Your task to perform on an android device: turn pop-ups on in chrome Image 0: 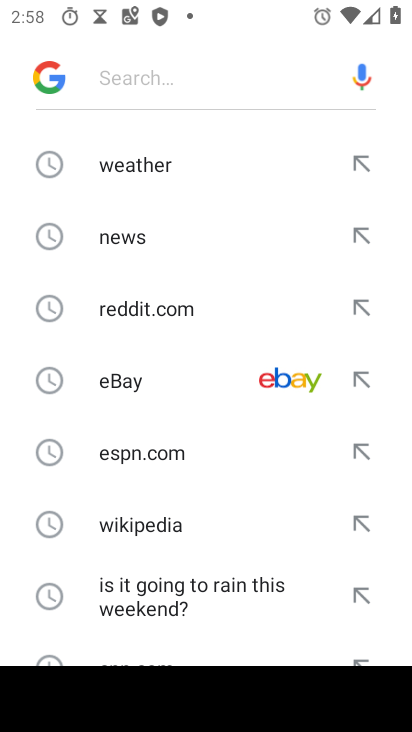
Step 0: press home button
Your task to perform on an android device: turn pop-ups on in chrome Image 1: 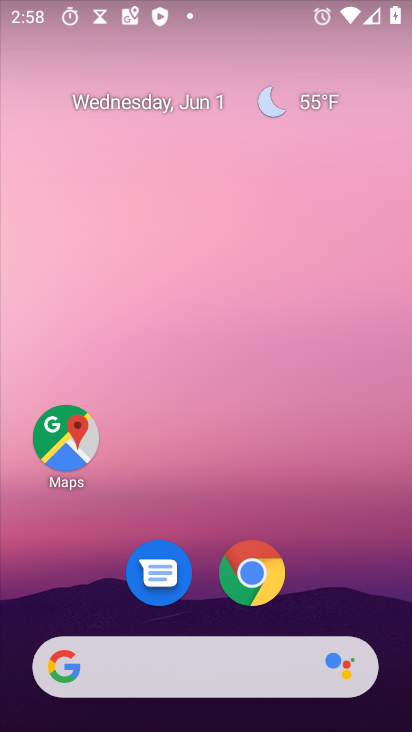
Step 1: drag from (367, 518) to (331, 19)
Your task to perform on an android device: turn pop-ups on in chrome Image 2: 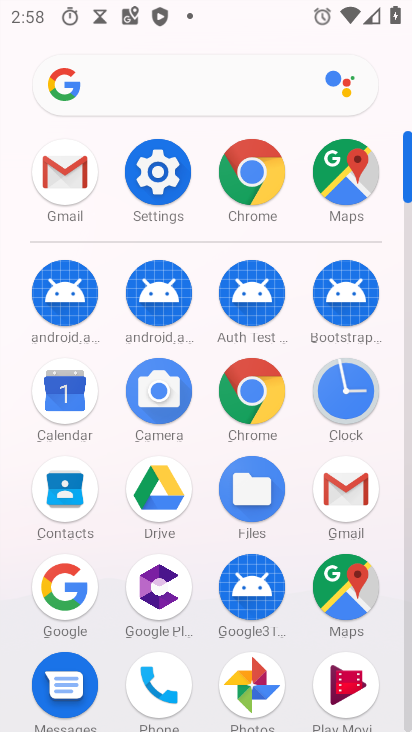
Step 2: click (254, 159)
Your task to perform on an android device: turn pop-ups on in chrome Image 3: 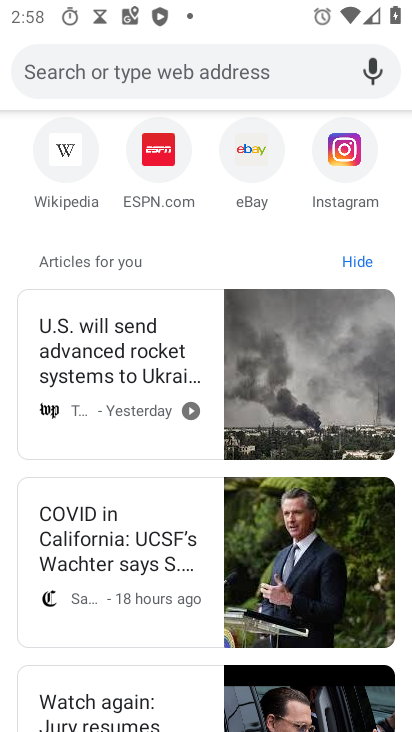
Step 3: drag from (218, 156) to (210, 557)
Your task to perform on an android device: turn pop-ups on in chrome Image 4: 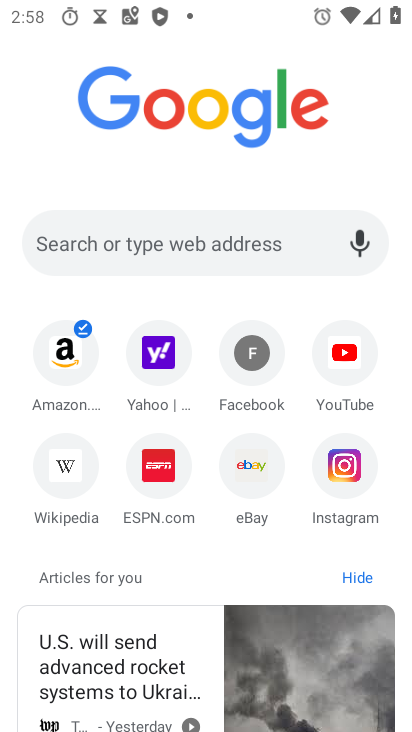
Step 4: drag from (235, 235) to (308, 613)
Your task to perform on an android device: turn pop-ups on in chrome Image 5: 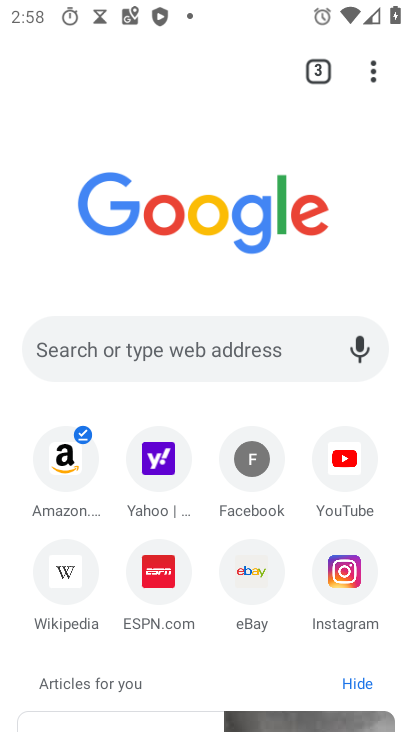
Step 5: drag from (369, 79) to (106, 633)
Your task to perform on an android device: turn pop-ups on in chrome Image 6: 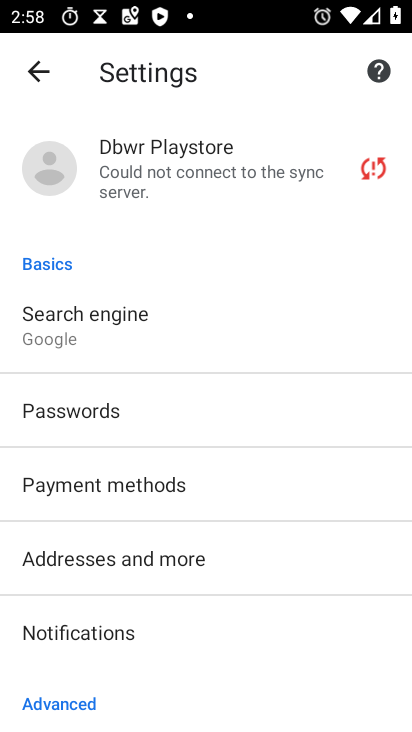
Step 6: drag from (103, 620) to (159, 225)
Your task to perform on an android device: turn pop-ups on in chrome Image 7: 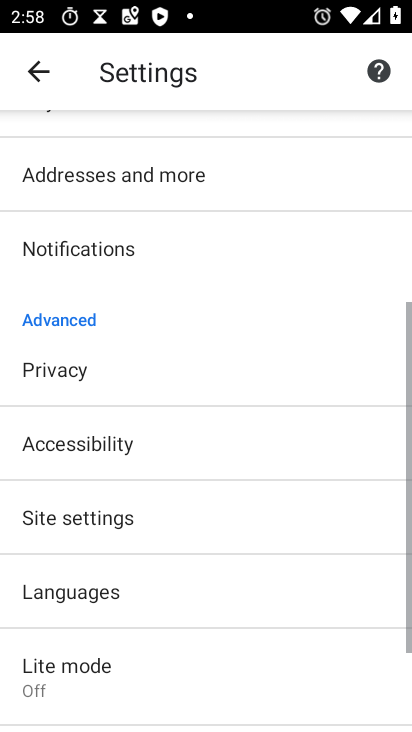
Step 7: click (70, 522)
Your task to perform on an android device: turn pop-ups on in chrome Image 8: 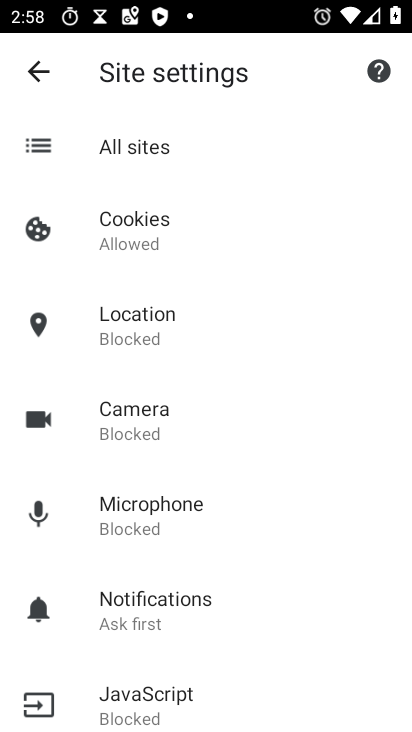
Step 8: drag from (126, 613) to (201, 196)
Your task to perform on an android device: turn pop-ups on in chrome Image 9: 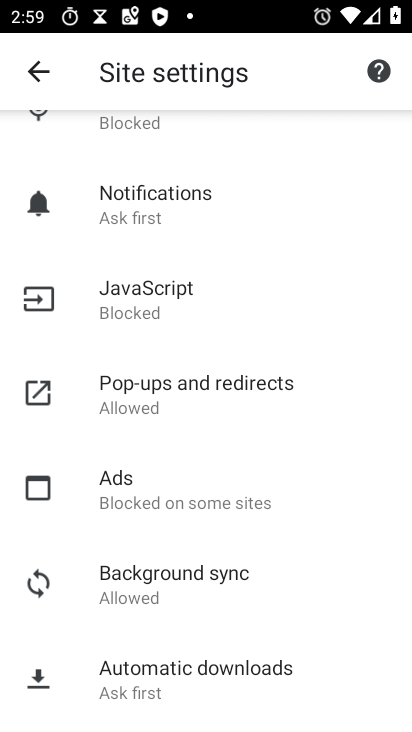
Step 9: drag from (212, 596) to (232, 270)
Your task to perform on an android device: turn pop-ups on in chrome Image 10: 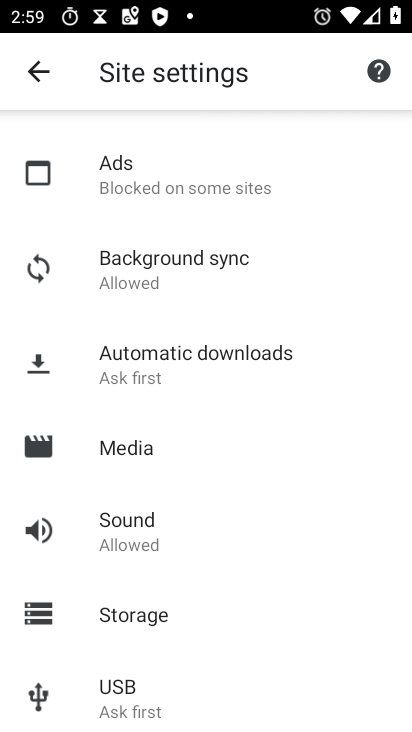
Step 10: drag from (192, 171) to (232, 622)
Your task to perform on an android device: turn pop-ups on in chrome Image 11: 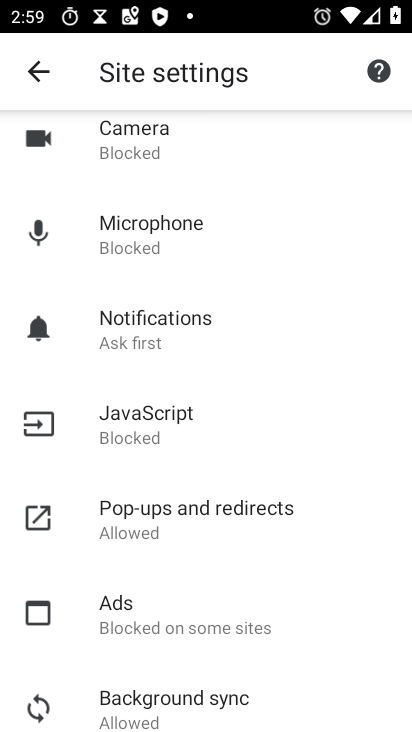
Step 11: drag from (211, 257) to (236, 610)
Your task to perform on an android device: turn pop-ups on in chrome Image 12: 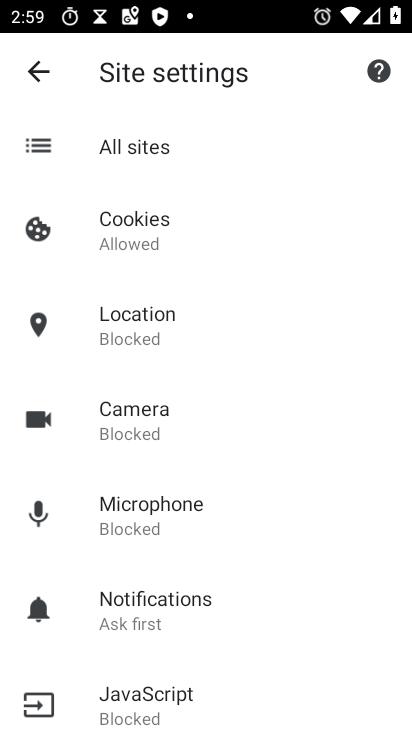
Step 12: drag from (227, 593) to (196, 288)
Your task to perform on an android device: turn pop-ups on in chrome Image 13: 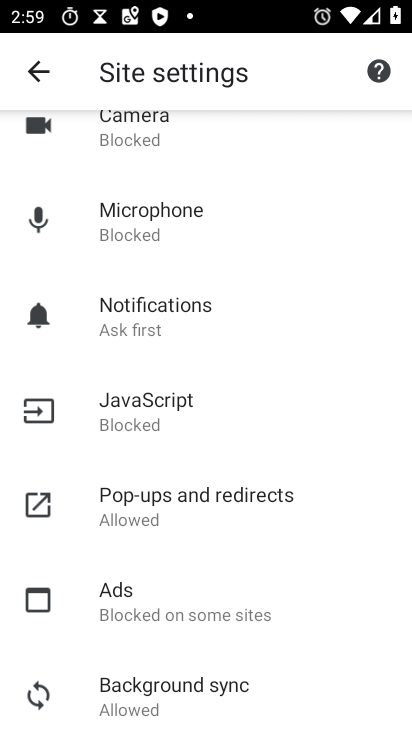
Step 13: click (152, 506)
Your task to perform on an android device: turn pop-ups on in chrome Image 14: 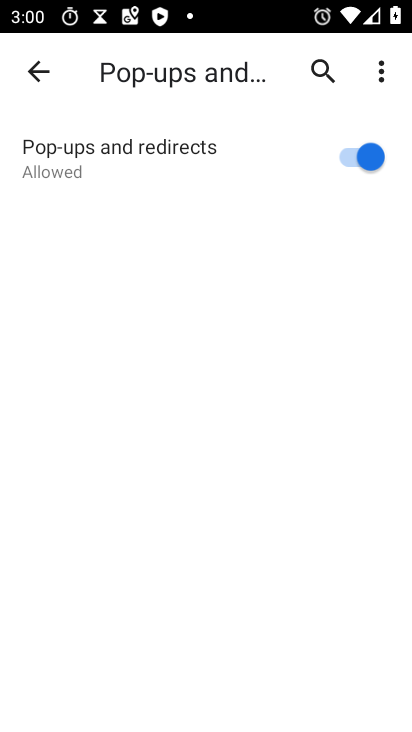
Step 14: task complete